Your task to perform on an android device: show emergency info Image 0: 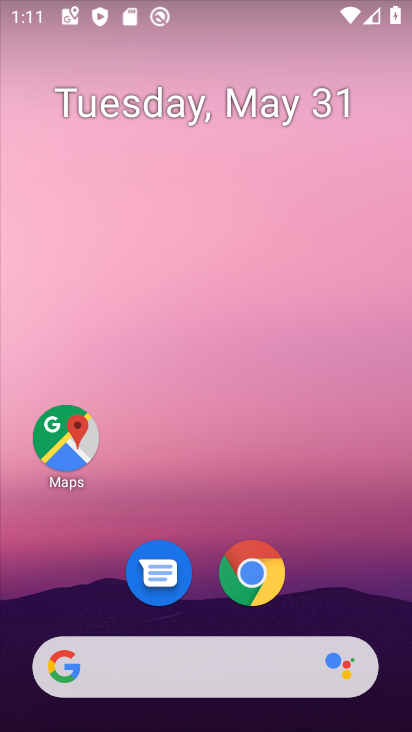
Step 0: drag from (350, 604) to (393, 74)
Your task to perform on an android device: show emergency info Image 1: 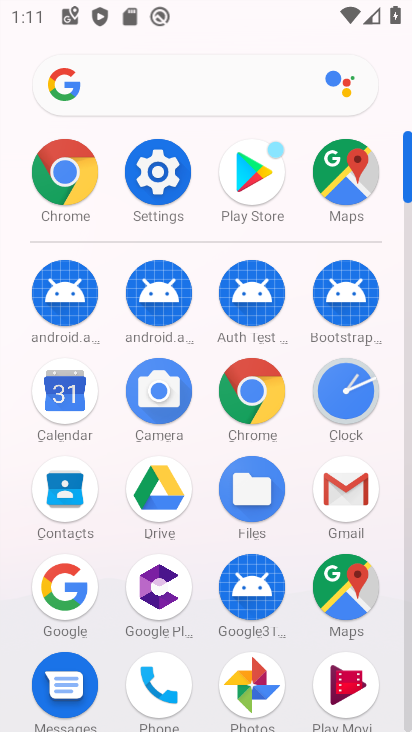
Step 1: click (174, 198)
Your task to perform on an android device: show emergency info Image 2: 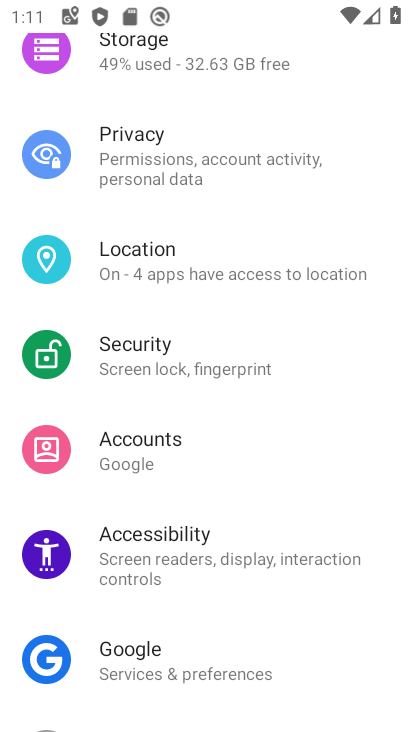
Step 2: drag from (336, 202) to (331, 261)
Your task to perform on an android device: show emergency info Image 3: 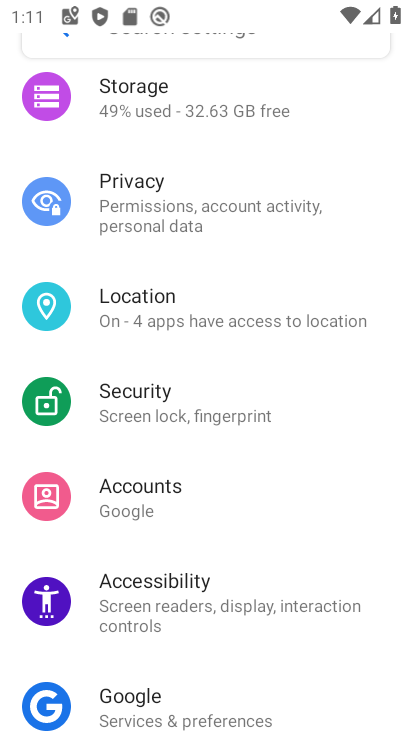
Step 3: drag from (337, 183) to (341, 277)
Your task to perform on an android device: show emergency info Image 4: 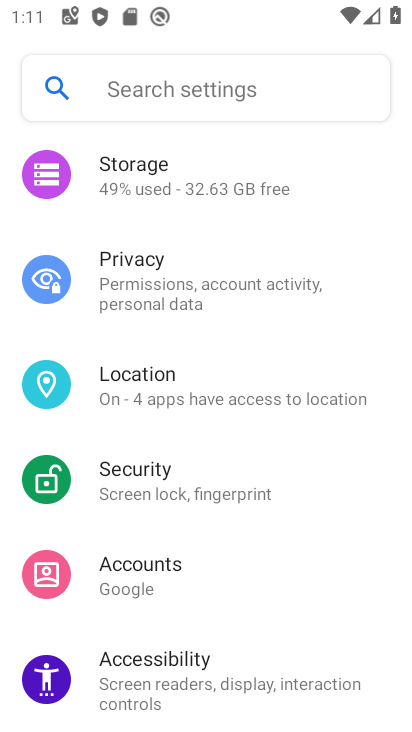
Step 4: drag from (345, 166) to (343, 262)
Your task to perform on an android device: show emergency info Image 5: 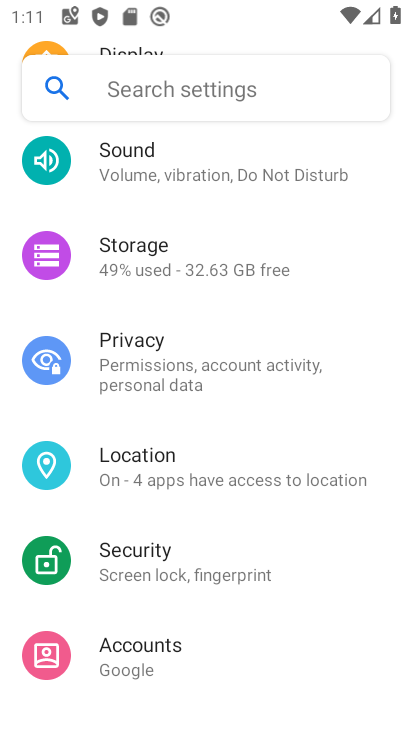
Step 5: drag from (346, 150) to (352, 296)
Your task to perform on an android device: show emergency info Image 6: 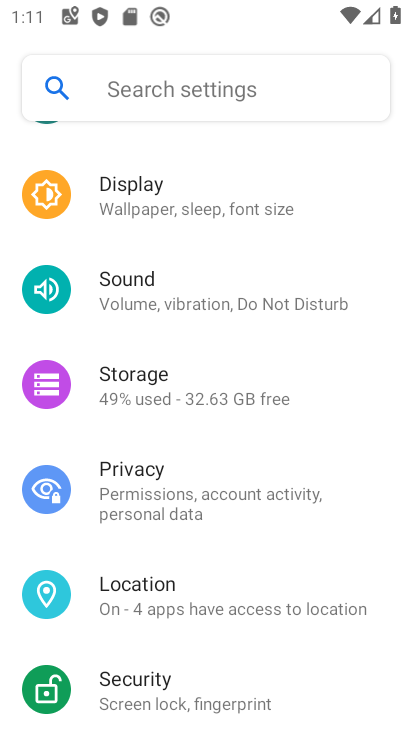
Step 6: drag from (342, 164) to (349, 284)
Your task to perform on an android device: show emergency info Image 7: 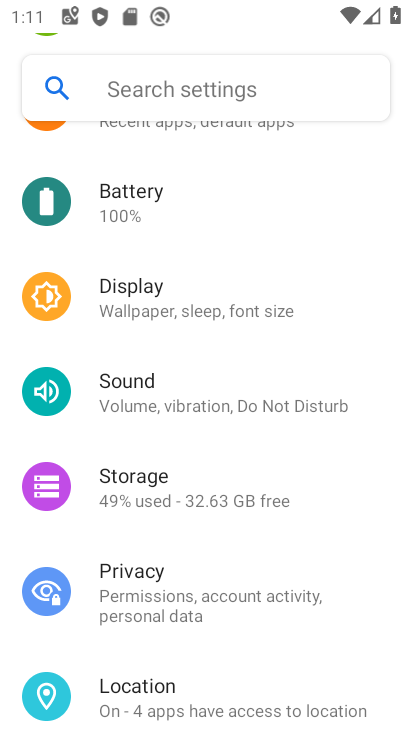
Step 7: drag from (332, 163) to (325, 328)
Your task to perform on an android device: show emergency info Image 8: 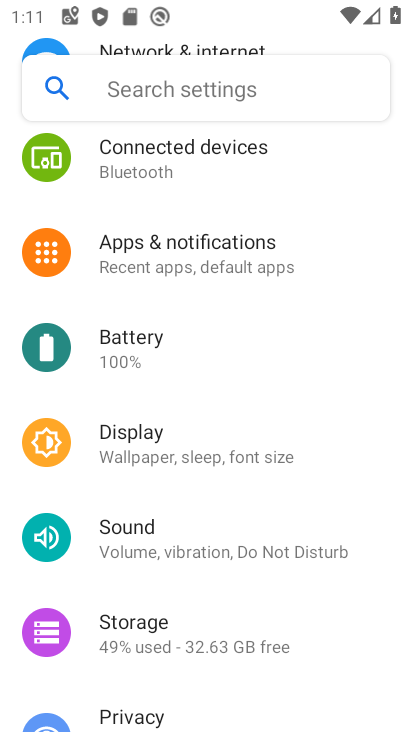
Step 8: drag from (308, 344) to (332, 227)
Your task to perform on an android device: show emergency info Image 9: 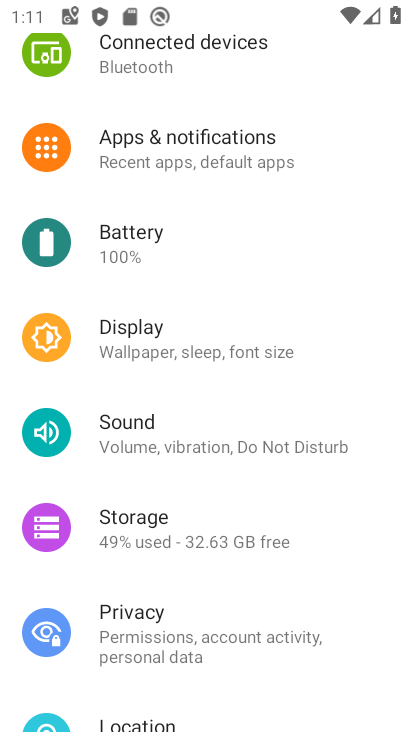
Step 9: drag from (315, 400) to (348, 281)
Your task to perform on an android device: show emergency info Image 10: 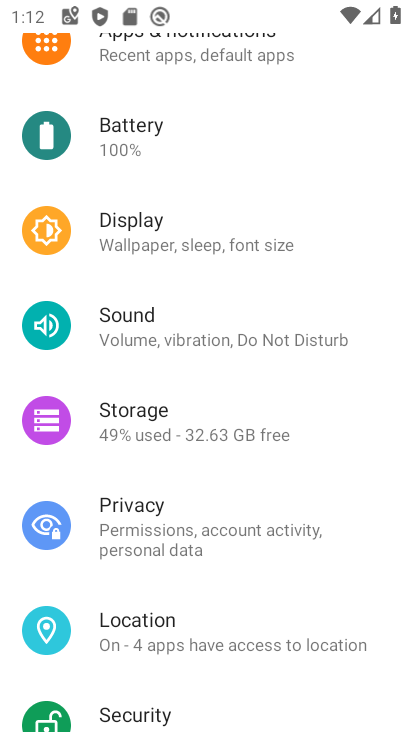
Step 10: drag from (354, 423) to (371, 268)
Your task to perform on an android device: show emergency info Image 11: 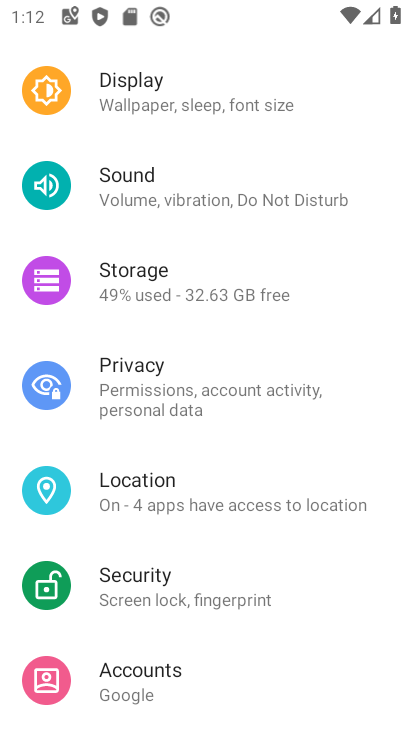
Step 11: drag from (333, 432) to (353, 302)
Your task to perform on an android device: show emergency info Image 12: 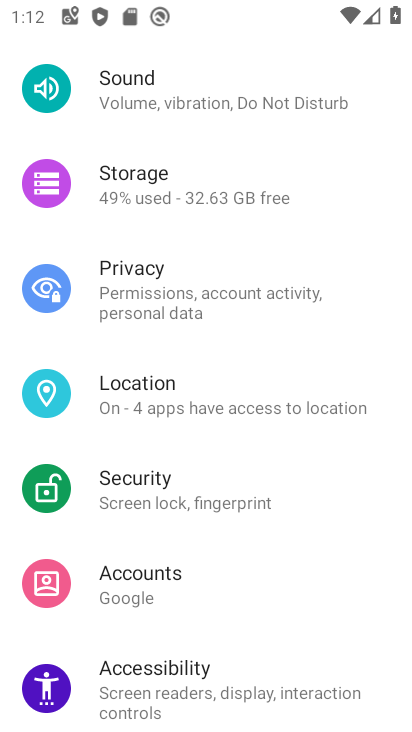
Step 12: drag from (324, 501) to (323, 354)
Your task to perform on an android device: show emergency info Image 13: 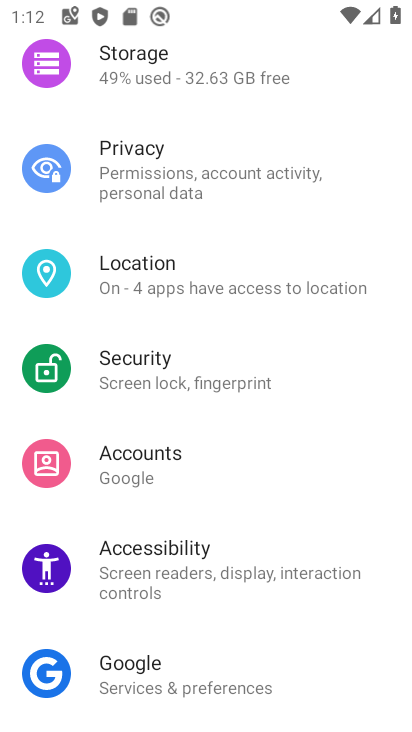
Step 13: drag from (341, 463) to (339, 341)
Your task to perform on an android device: show emergency info Image 14: 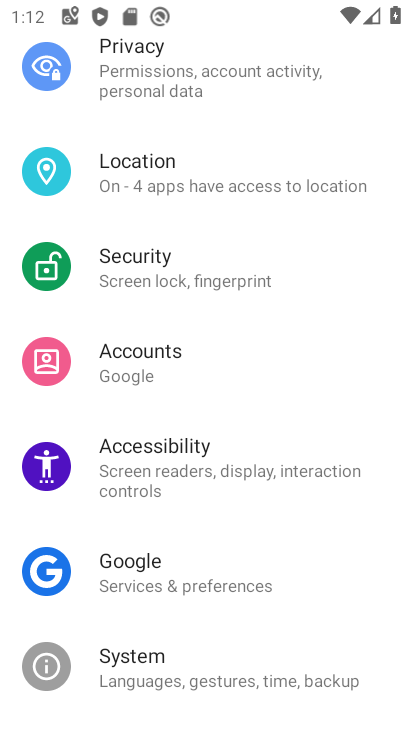
Step 14: drag from (345, 513) to (355, 363)
Your task to perform on an android device: show emergency info Image 15: 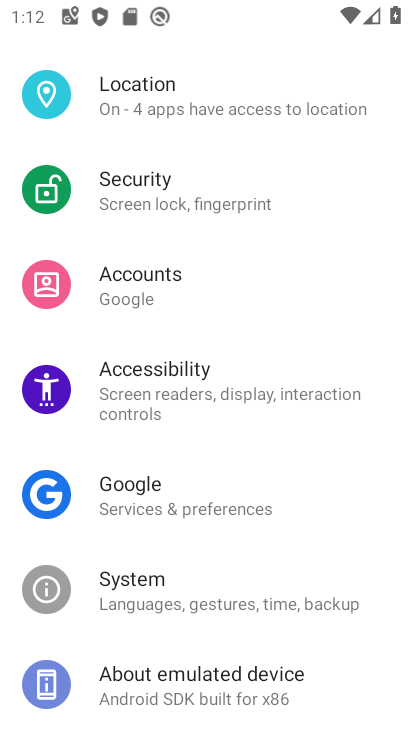
Step 15: click (254, 692)
Your task to perform on an android device: show emergency info Image 16: 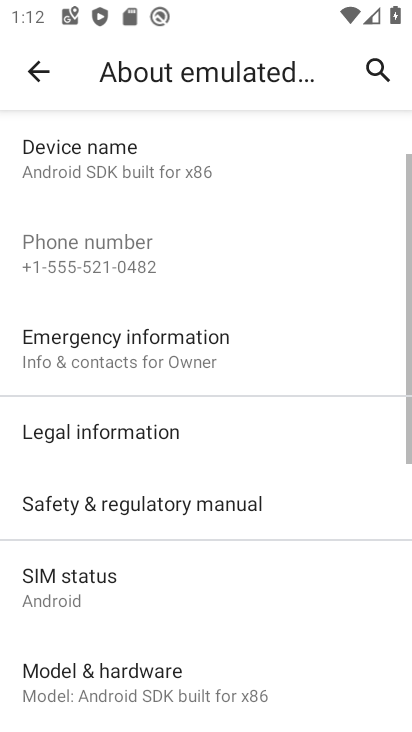
Step 16: click (271, 343)
Your task to perform on an android device: show emergency info Image 17: 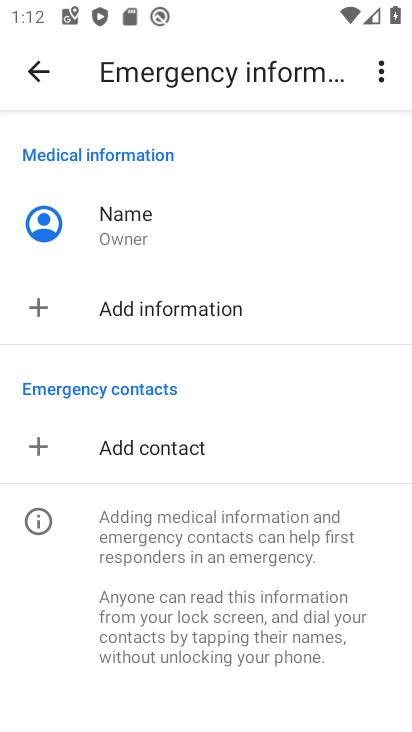
Step 17: task complete